Your task to perform on an android device: toggle javascript in the chrome app Image 0: 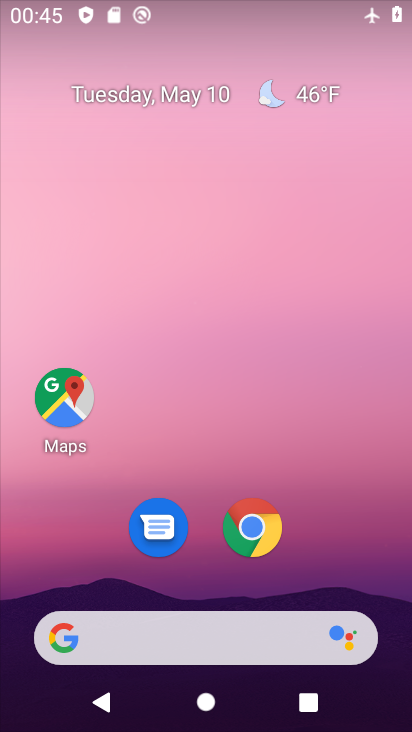
Step 0: click (251, 537)
Your task to perform on an android device: toggle javascript in the chrome app Image 1: 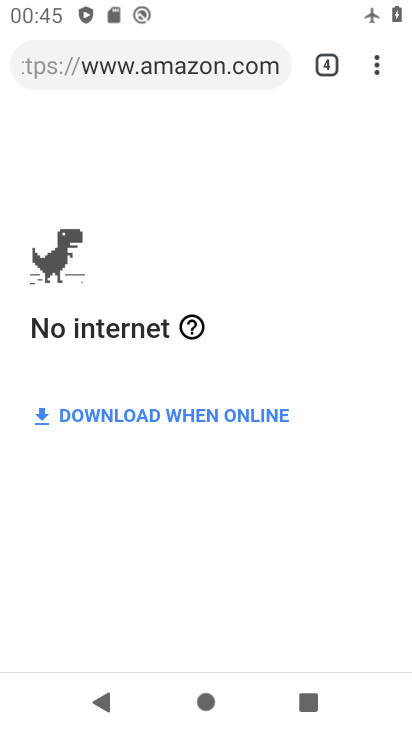
Step 1: drag from (374, 68) to (157, 581)
Your task to perform on an android device: toggle javascript in the chrome app Image 2: 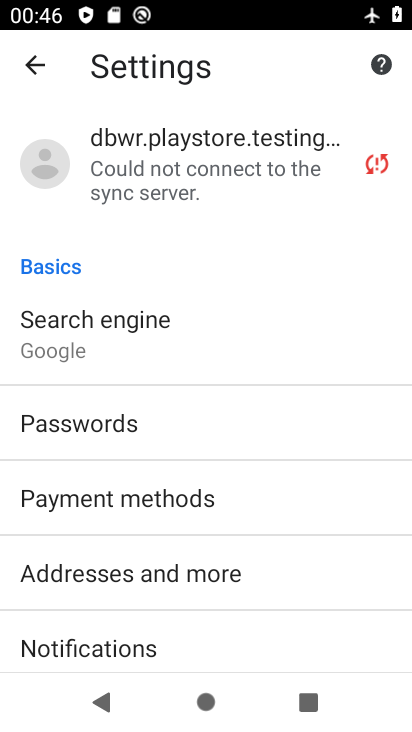
Step 2: drag from (181, 642) to (180, 318)
Your task to perform on an android device: toggle javascript in the chrome app Image 3: 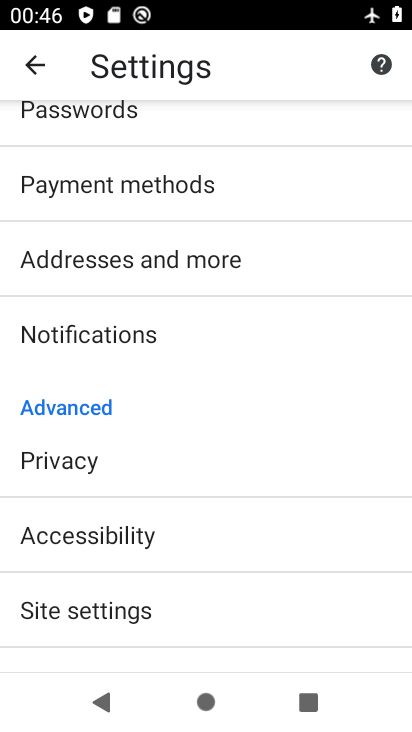
Step 3: click (102, 614)
Your task to perform on an android device: toggle javascript in the chrome app Image 4: 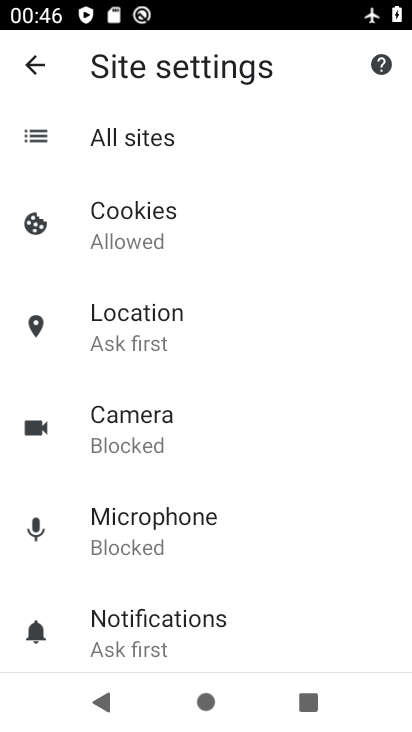
Step 4: drag from (301, 645) to (312, 378)
Your task to perform on an android device: toggle javascript in the chrome app Image 5: 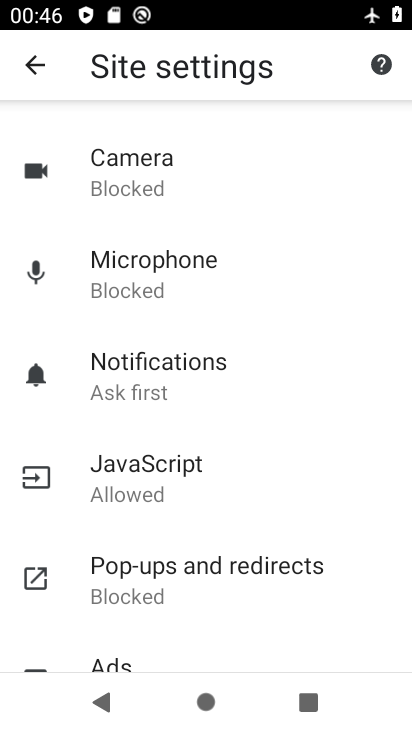
Step 5: click (281, 491)
Your task to perform on an android device: toggle javascript in the chrome app Image 6: 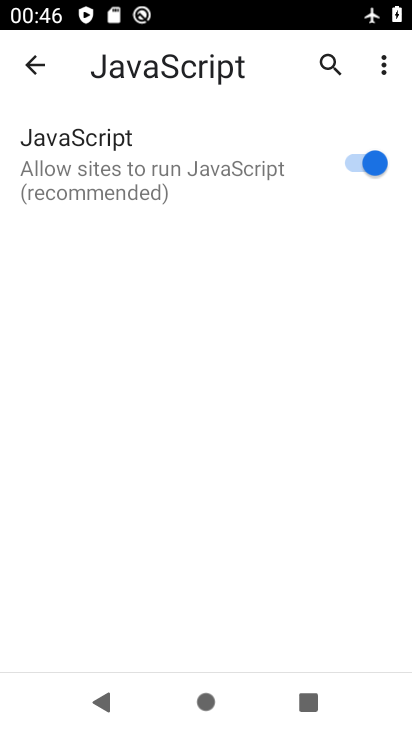
Step 6: task complete